Your task to perform on an android device: delete a single message in the gmail app Image 0: 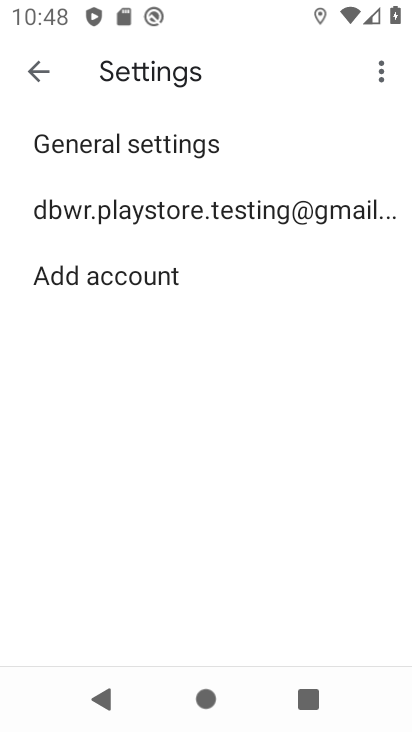
Step 0: press home button
Your task to perform on an android device: delete a single message in the gmail app Image 1: 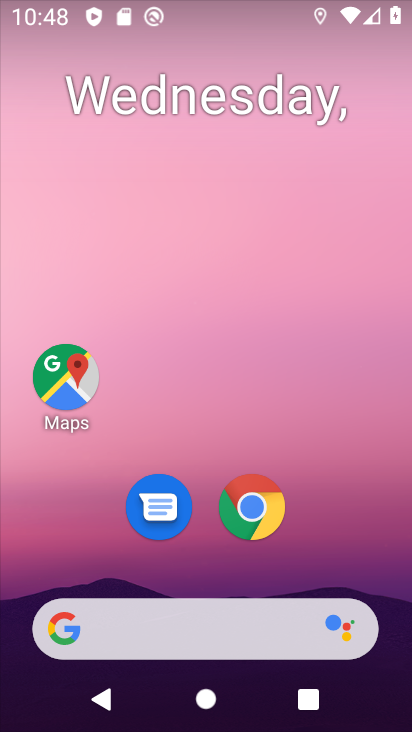
Step 1: drag from (361, 528) to (341, 59)
Your task to perform on an android device: delete a single message in the gmail app Image 2: 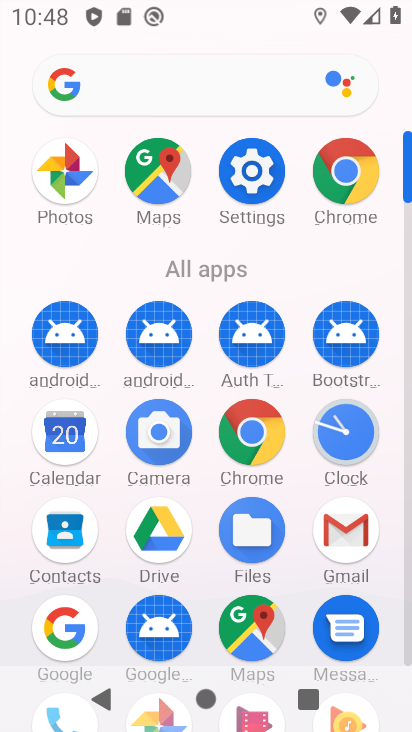
Step 2: click (342, 540)
Your task to perform on an android device: delete a single message in the gmail app Image 3: 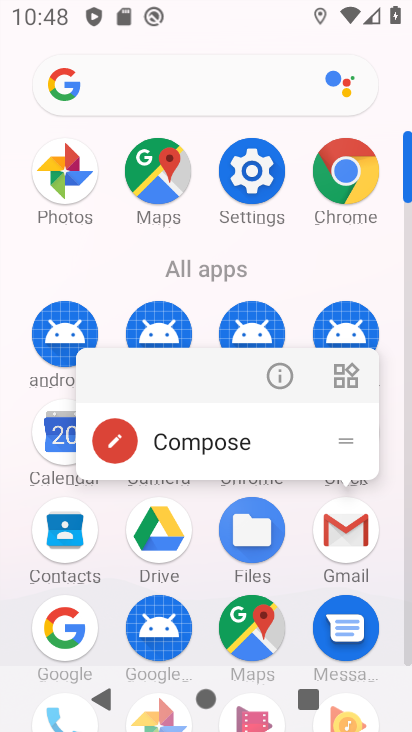
Step 3: click (343, 540)
Your task to perform on an android device: delete a single message in the gmail app Image 4: 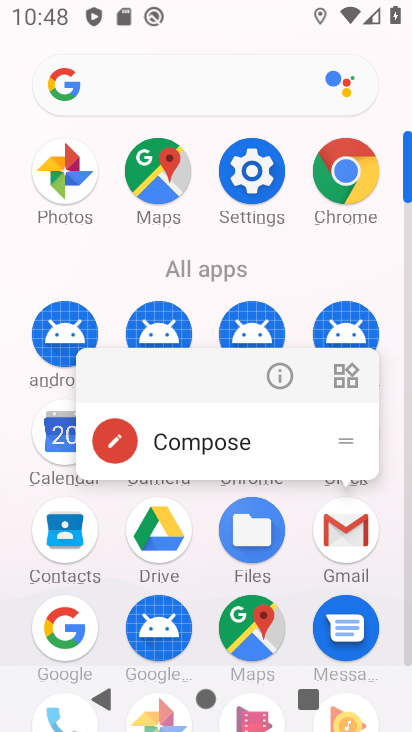
Step 4: click (344, 539)
Your task to perform on an android device: delete a single message in the gmail app Image 5: 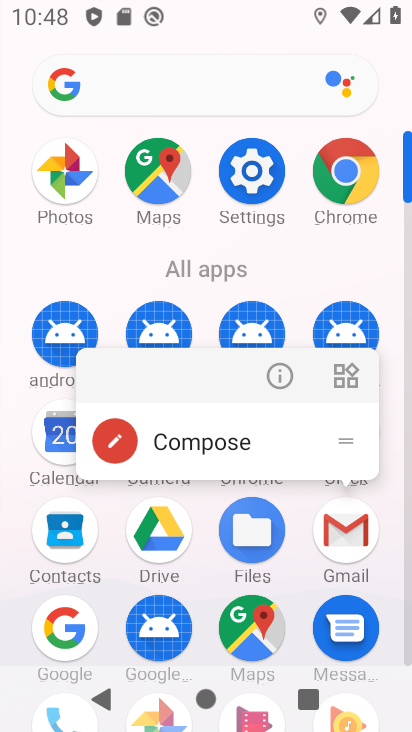
Step 5: click (344, 539)
Your task to perform on an android device: delete a single message in the gmail app Image 6: 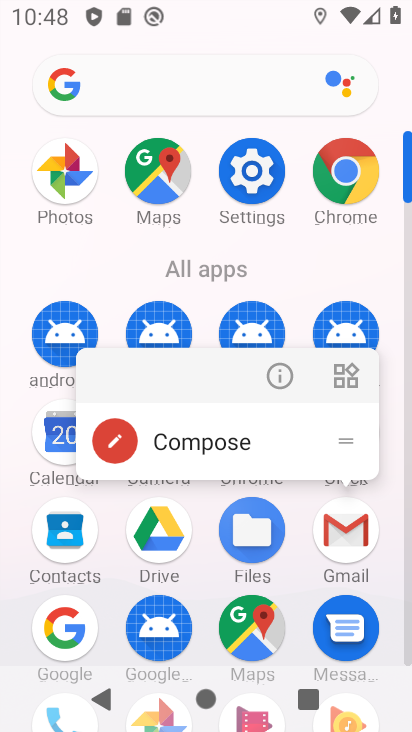
Step 6: click (344, 539)
Your task to perform on an android device: delete a single message in the gmail app Image 7: 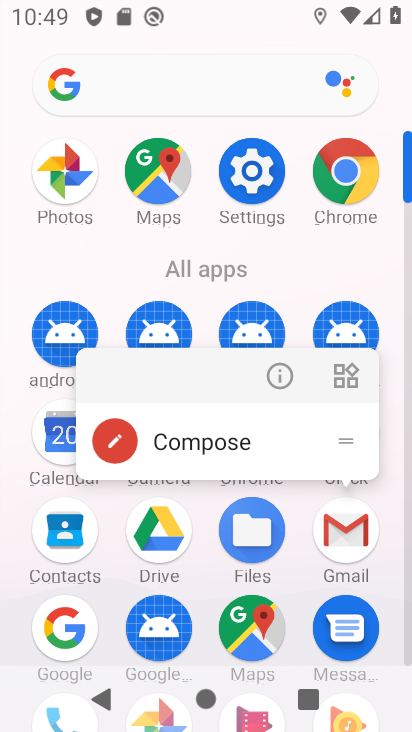
Step 7: click (343, 526)
Your task to perform on an android device: delete a single message in the gmail app Image 8: 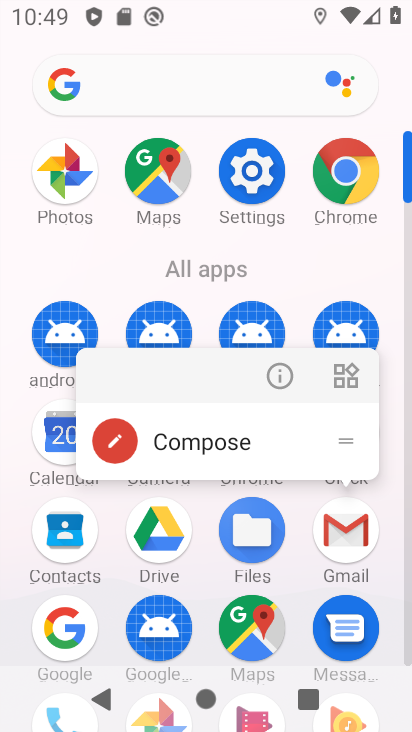
Step 8: click (337, 525)
Your task to perform on an android device: delete a single message in the gmail app Image 9: 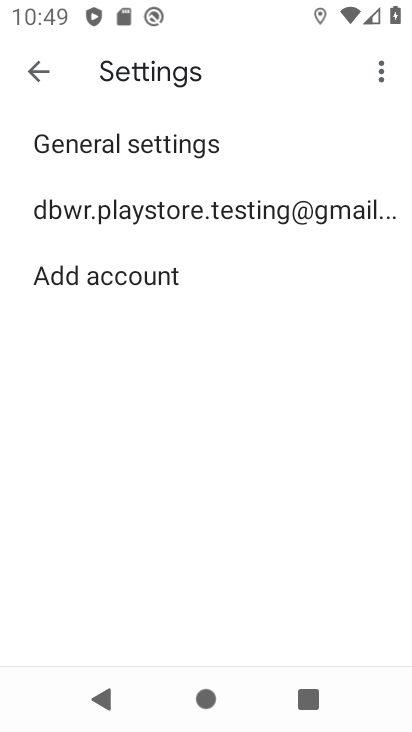
Step 9: click (38, 77)
Your task to perform on an android device: delete a single message in the gmail app Image 10: 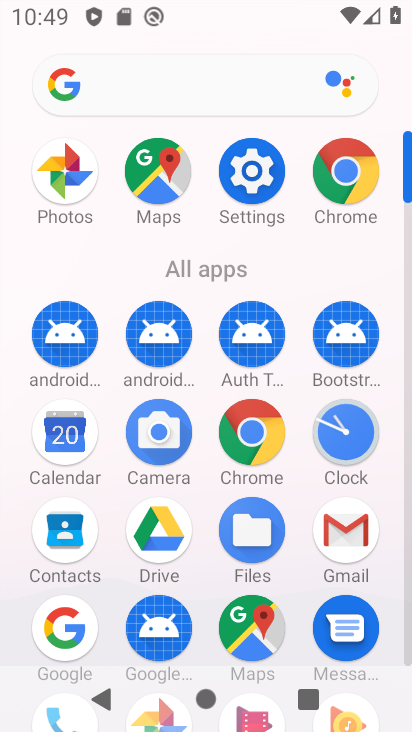
Step 10: click (336, 534)
Your task to perform on an android device: delete a single message in the gmail app Image 11: 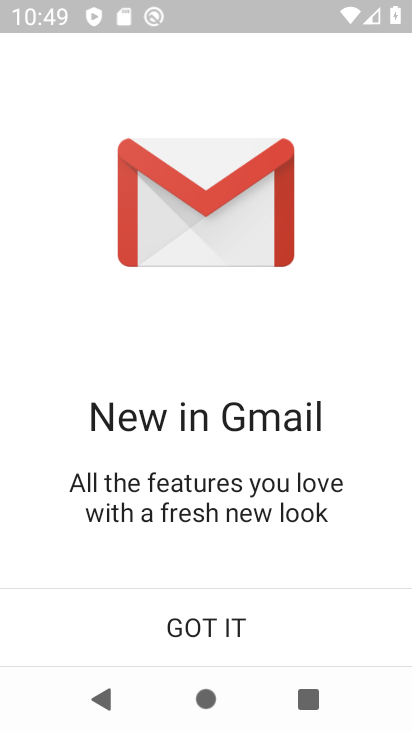
Step 11: click (233, 617)
Your task to perform on an android device: delete a single message in the gmail app Image 12: 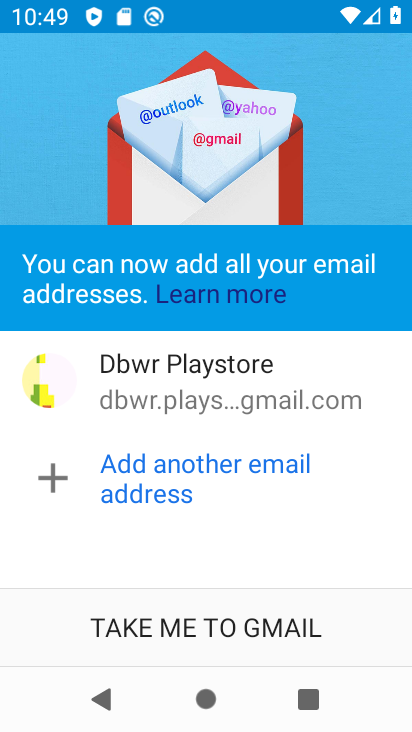
Step 12: click (234, 618)
Your task to perform on an android device: delete a single message in the gmail app Image 13: 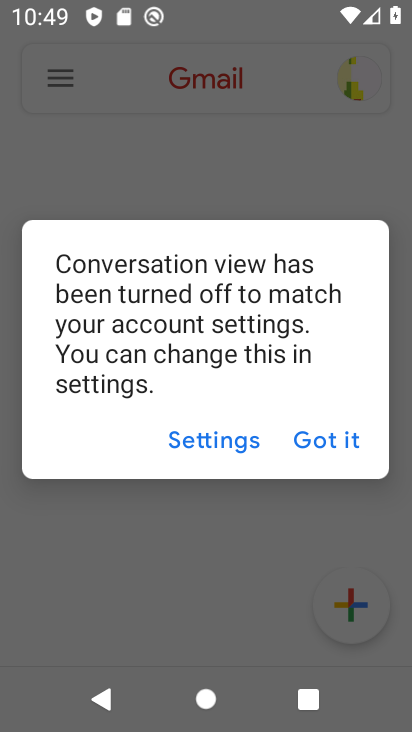
Step 13: click (308, 438)
Your task to perform on an android device: delete a single message in the gmail app Image 14: 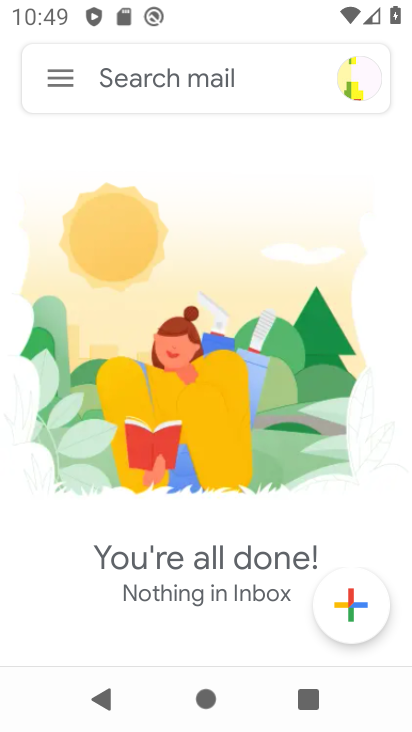
Step 14: task complete